Your task to perform on an android device: change your default location settings in chrome Image 0: 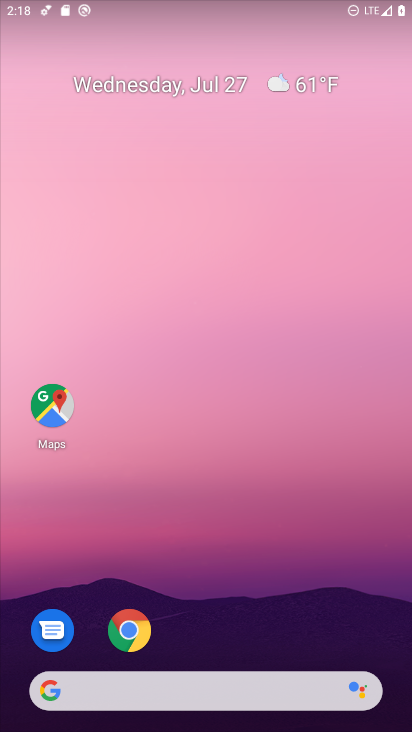
Step 0: click (143, 623)
Your task to perform on an android device: change your default location settings in chrome Image 1: 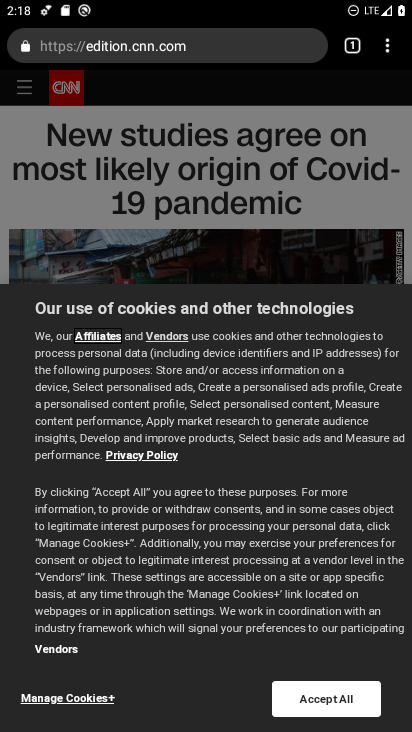
Step 1: click (382, 52)
Your task to perform on an android device: change your default location settings in chrome Image 2: 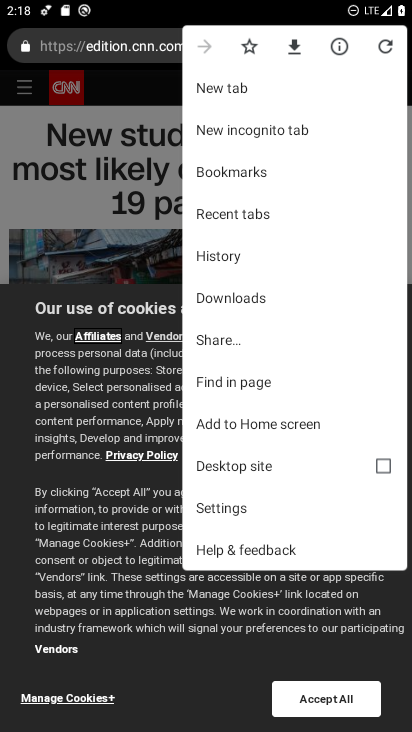
Step 2: click (227, 510)
Your task to perform on an android device: change your default location settings in chrome Image 3: 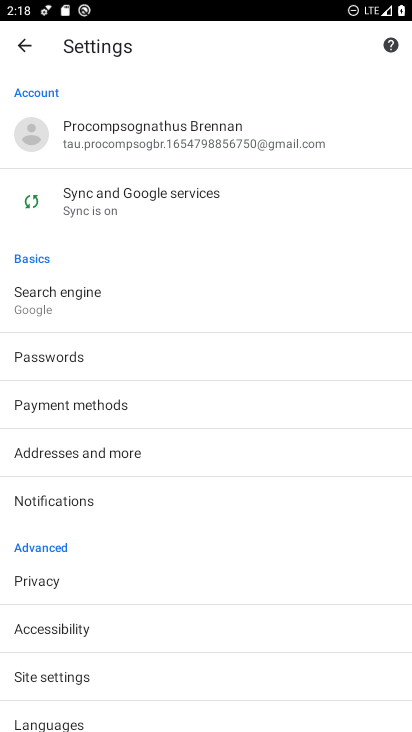
Step 3: click (67, 678)
Your task to perform on an android device: change your default location settings in chrome Image 4: 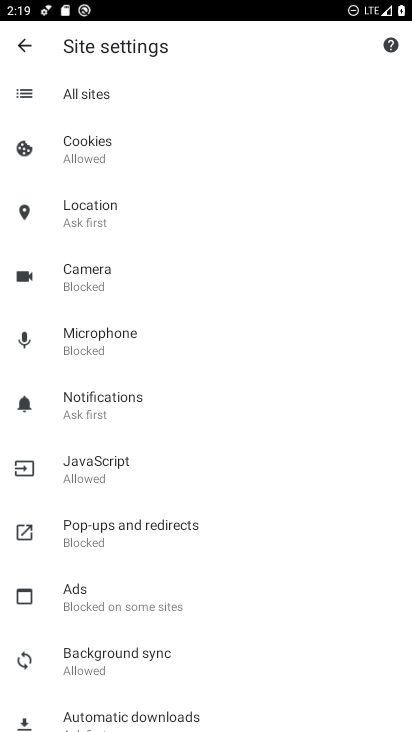
Step 4: click (117, 214)
Your task to perform on an android device: change your default location settings in chrome Image 5: 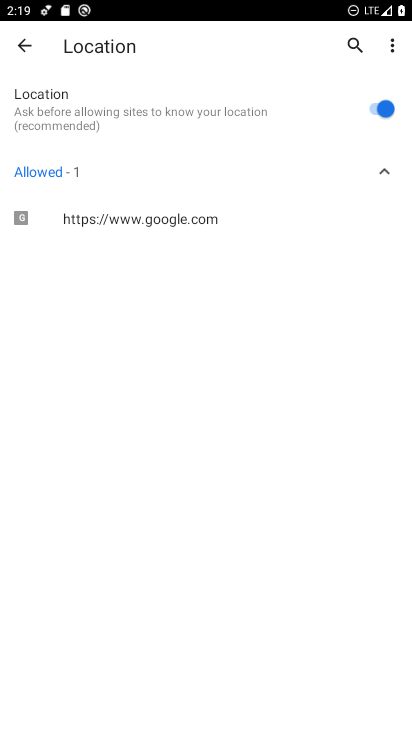
Step 5: click (381, 106)
Your task to perform on an android device: change your default location settings in chrome Image 6: 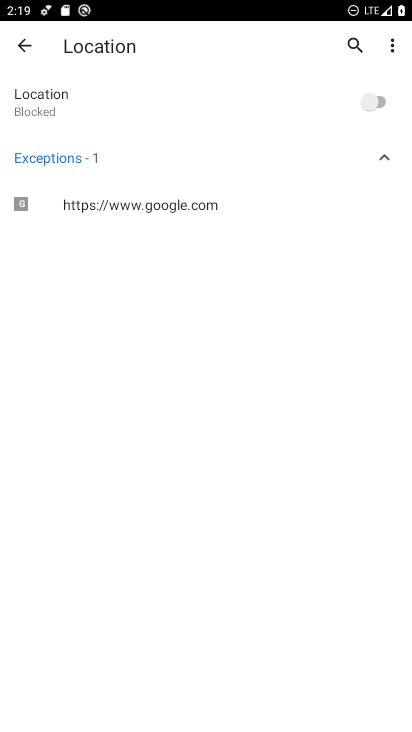
Step 6: task complete